Your task to perform on an android device: Open Google Maps Image 0: 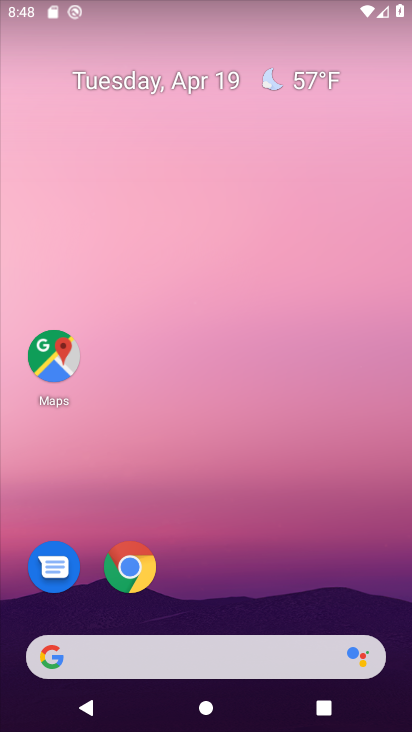
Step 0: click (49, 346)
Your task to perform on an android device: Open Google Maps Image 1: 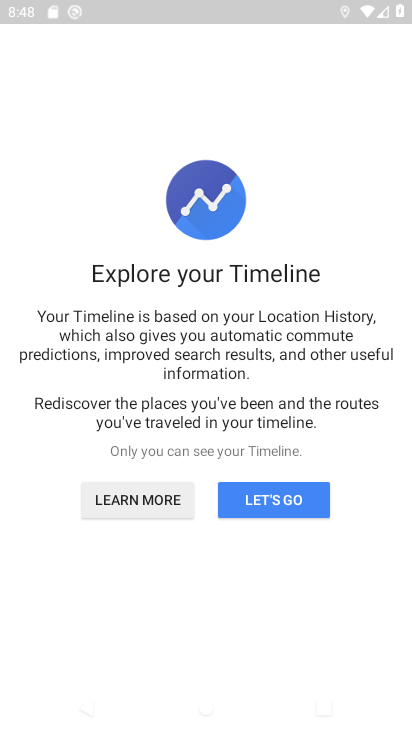
Step 1: task complete